Your task to perform on an android device: Open calendar and show me the second week of next month Image 0: 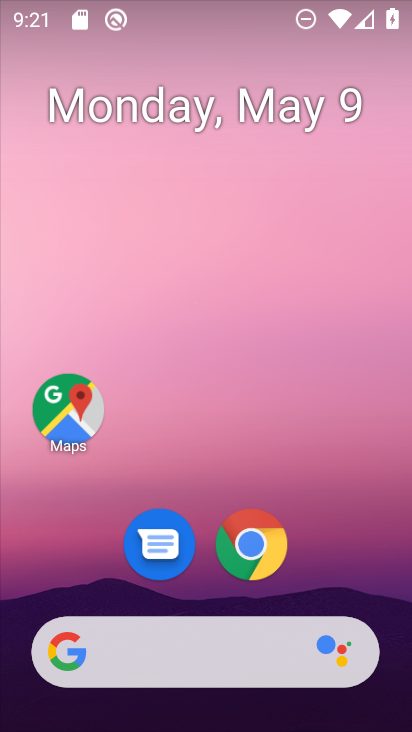
Step 0: drag from (329, 528) to (285, 127)
Your task to perform on an android device: Open calendar and show me the second week of next month Image 1: 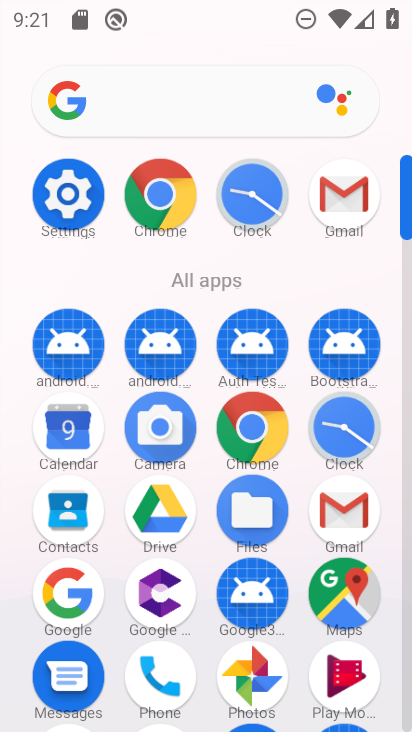
Step 1: click (61, 428)
Your task to perform on an android device: Open calendar and show me the second week of next month Image 2: 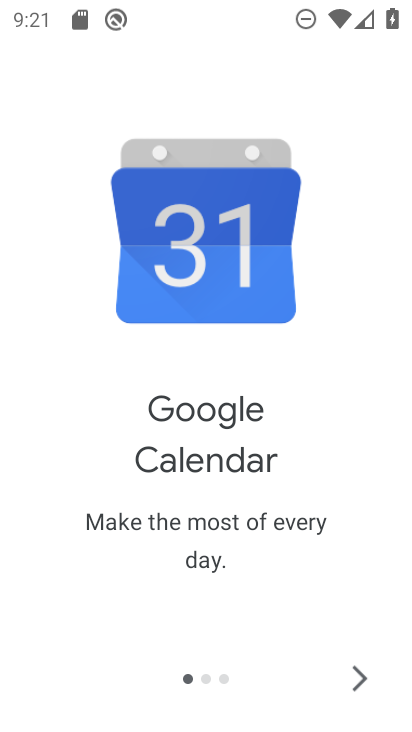
Step 2: click (361, 677)
Your task to perform on an android device: Open calendar and show me the second week of next month Image 3: 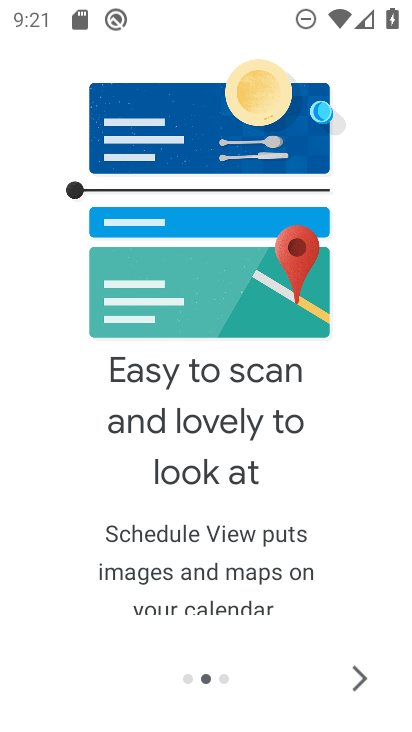
Step 3: click (361, 677)
Your task to perform on an android device: Open calendar and show me the second week of next month Image 4: 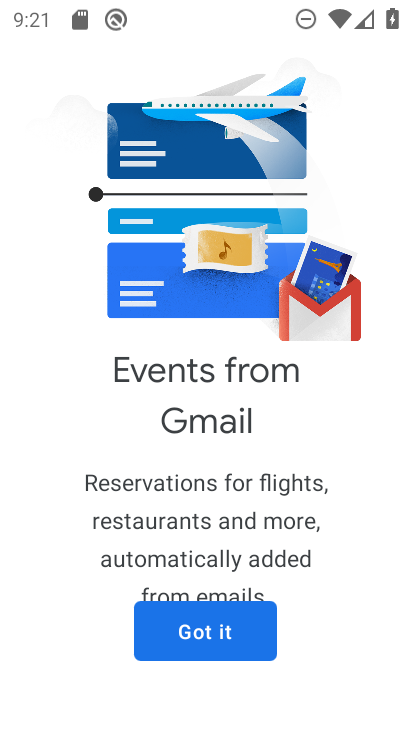
Step 4: click (200, 636)
Your task to perform on an android device: Open calendar and show me the second week of next month Image 5: 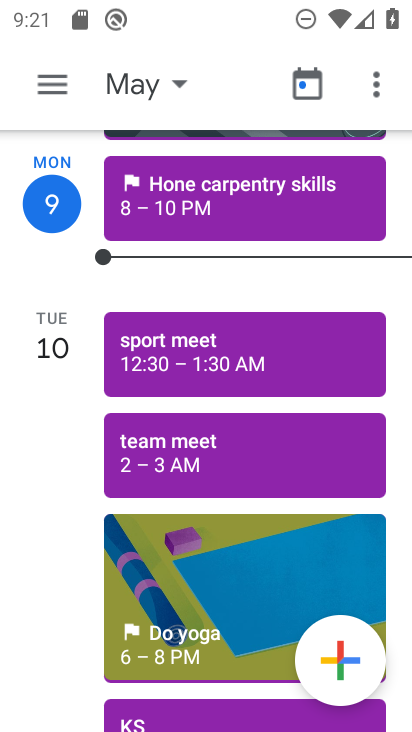
Step 5: click (50, 75)
Your task to perform on an android device: Open calendar and show me the second week of next month Image 6: 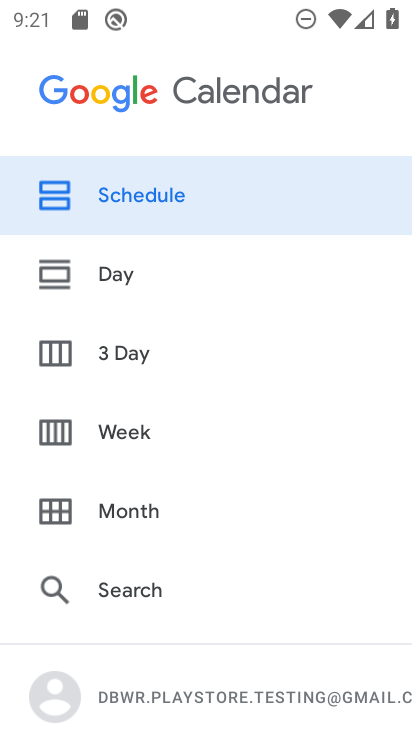
Step 6: click (123, 422)
Your task to perform on an android device: Open calendar and show me the second week of next month Image 7: 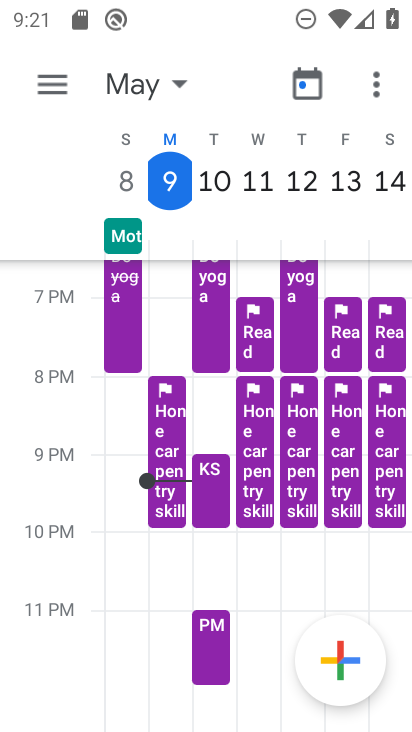
Step 7: click (176, 83)
Your task to perform on an android device: Open calendar and show me the second week of next month Image 8: 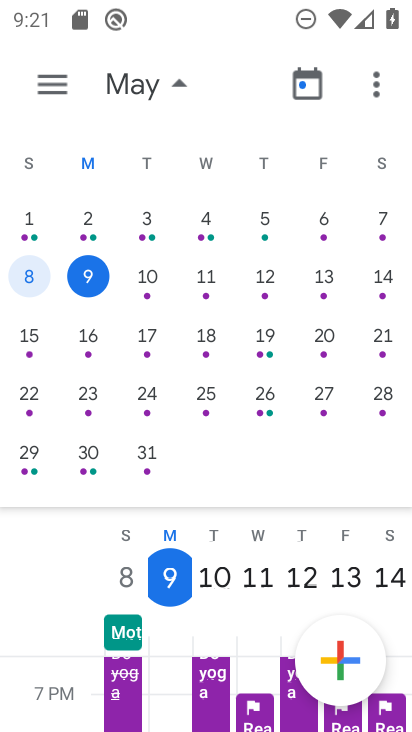
Step 8: drag from (351, 351) to (31, 409)
Your task to perform on an android device: Open calendar and show me the second week of next month Image 9: 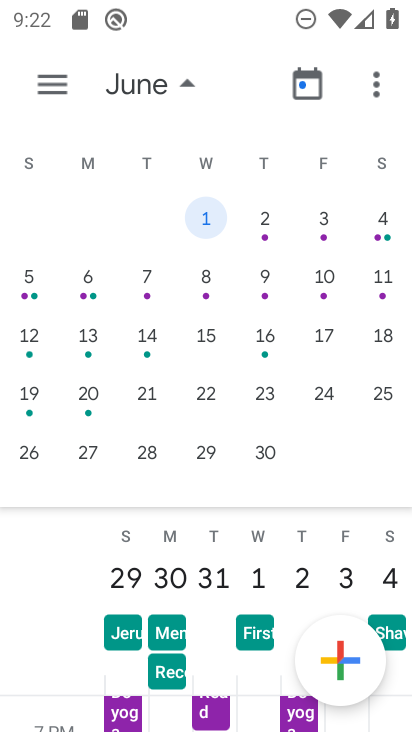
Step 9: click (208, 275)
Your task to perform on an android device: Open calendar and show me the second week of next month Image 10: 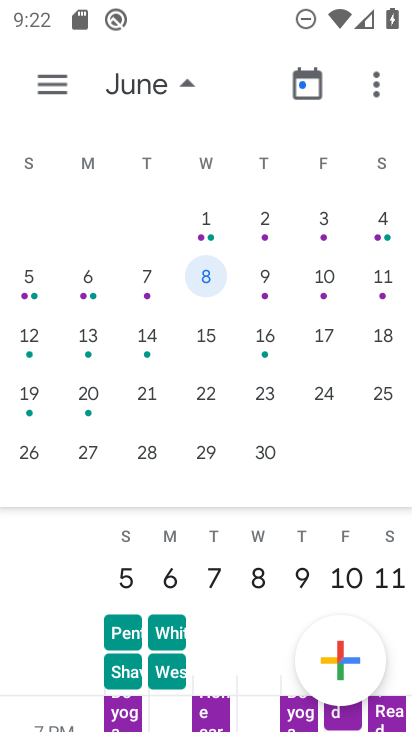
Step 10: task complete